Your task to perform on an android device: toggle wifi Image 0: 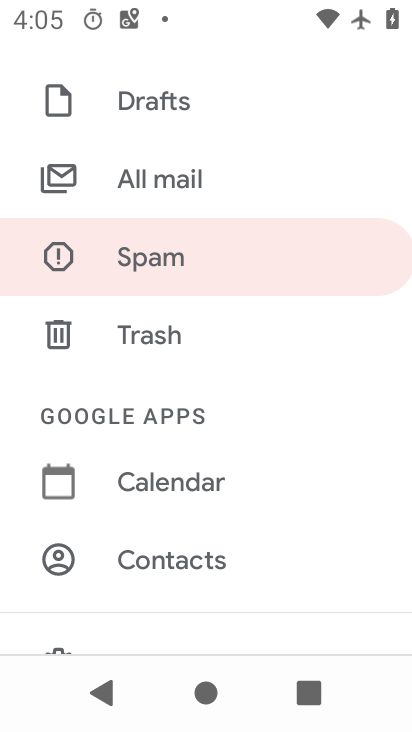
Step 0: press home button
Your task to perform on an android device: toggle wifi Image 1: 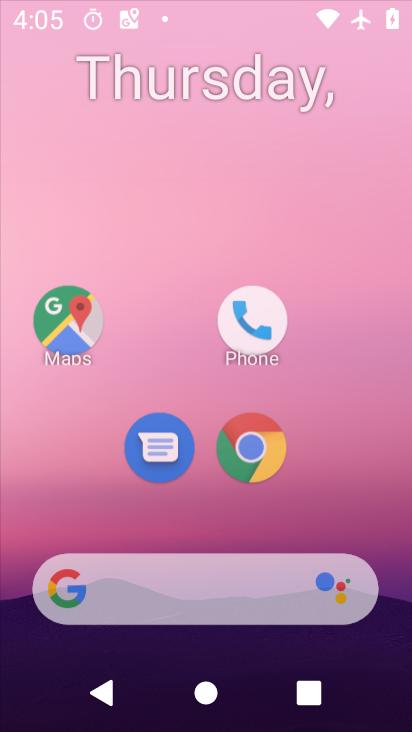
Step 1: drag from (188, 565) to (254, 100)
Your task to perform on an android device: toggle wifi Image 2: 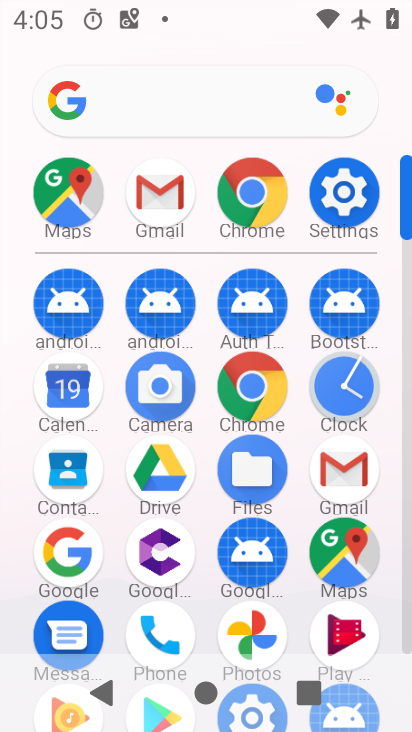
Step 2: click (340, 200)
Your task to perform on an android device: toggle wifi Image 3: 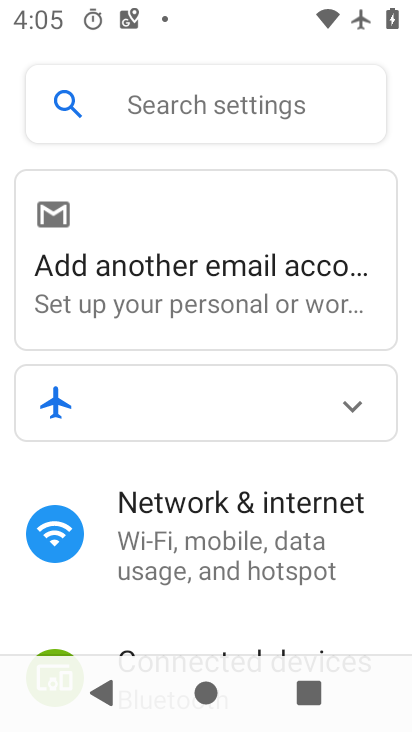
Step 3: click (203, 525)
Your task to perform on an android device: toggle wifi Image 4: 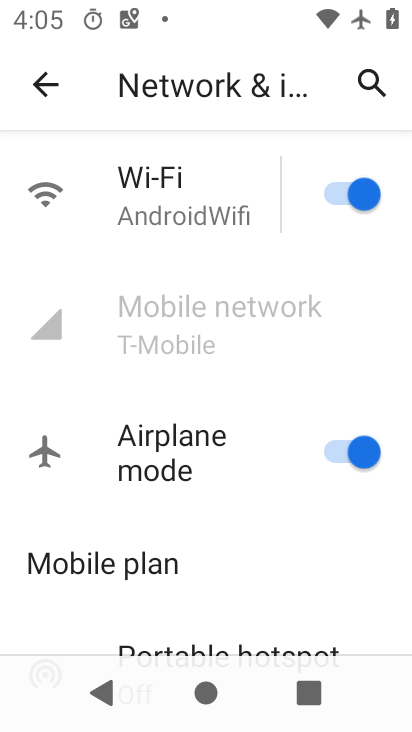
Step 4: drag from (226, 499) to (276, 151)
Your task to perform on an android device: toggle wifi Image 5: 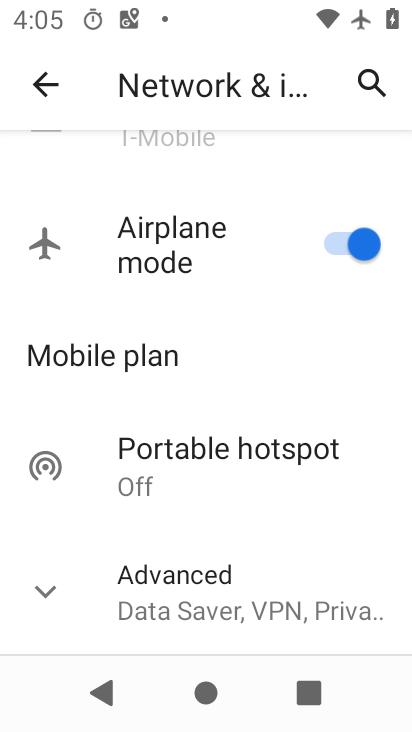
Step 5: drag from (251, 214) to (279, 649)
Your task to perform on an android device: toggle wifi Image 6: 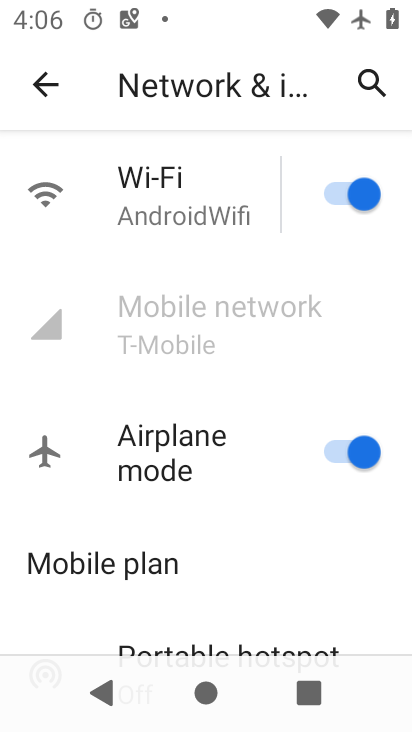
Step 6: click (344, 174)
Your task to perform on an android device: toggle wifi Image 7: 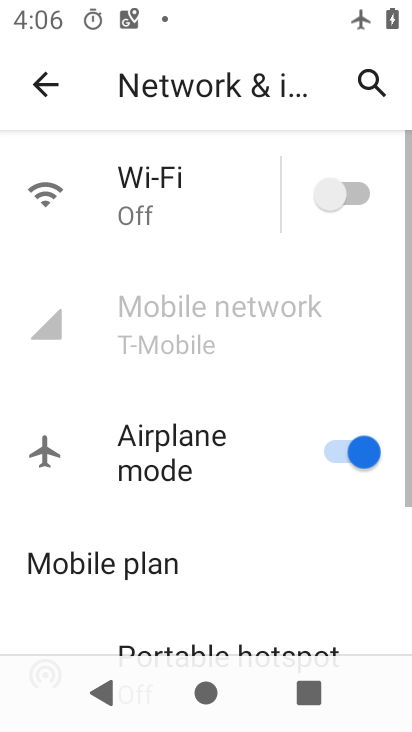
Step 7: task complete